Your task to perform on an android device: open app "Messenger Lite" Image 0: 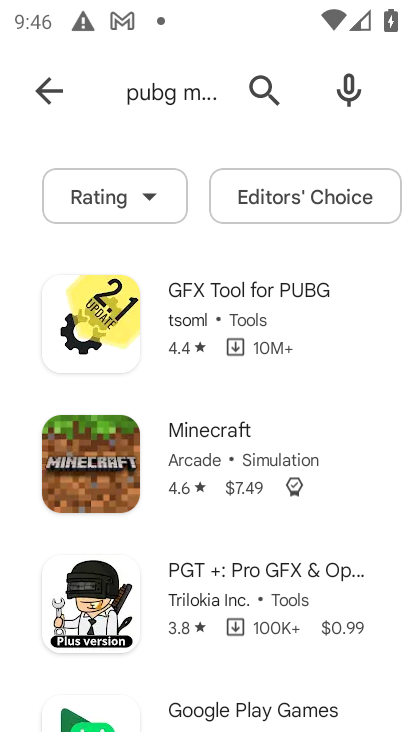
Step 0: click (256, 93)
Your task to perform on an android device: open app "Messenger Lite" Image 1: 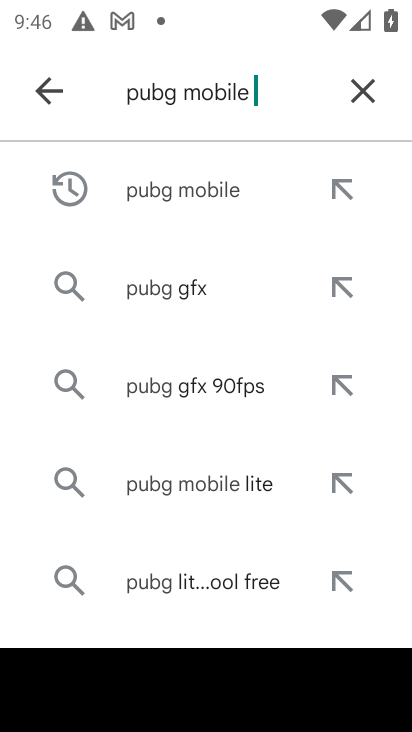
Step 1: click (345, 90)
Your task to perform on an android device: open app "Messenger Lite" Image 2: 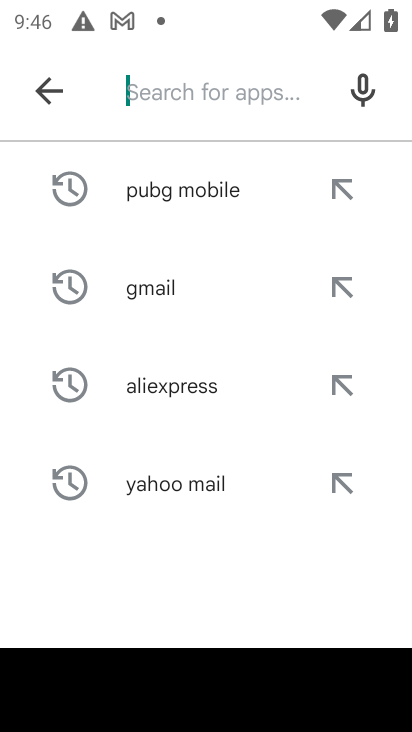
Step 2: type "Messenger Lite"
Your task to perform on an android device: open app "Messenger Lite" Image 3: 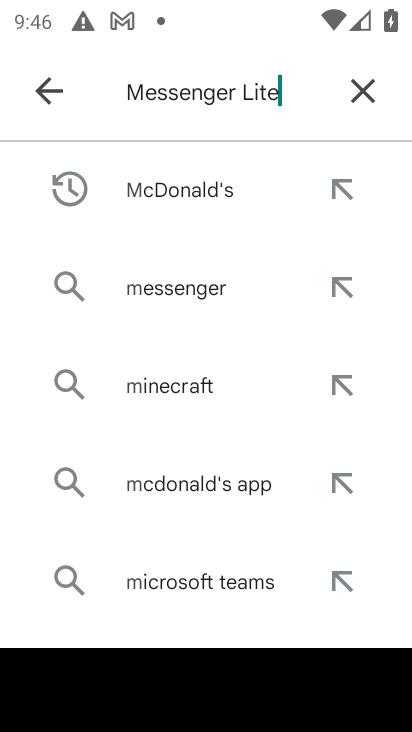
Step 3: type ""
Your task to perform on an android device: open app "Messenger Lite" Image 4: 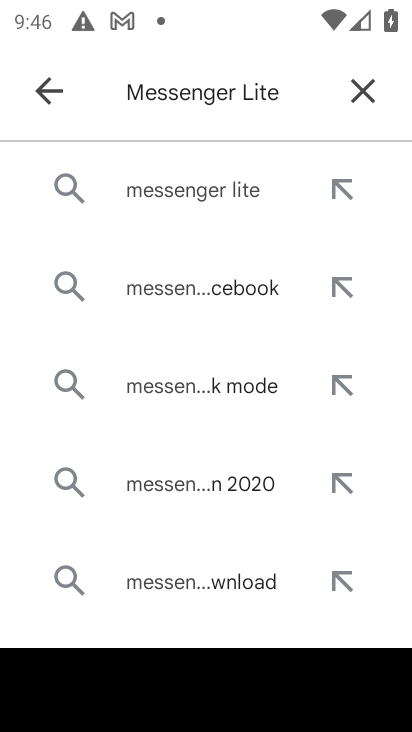
Step 4: click (281, 170)
Your task to perform on an android device: open app "Messenger Lite" Image 5: 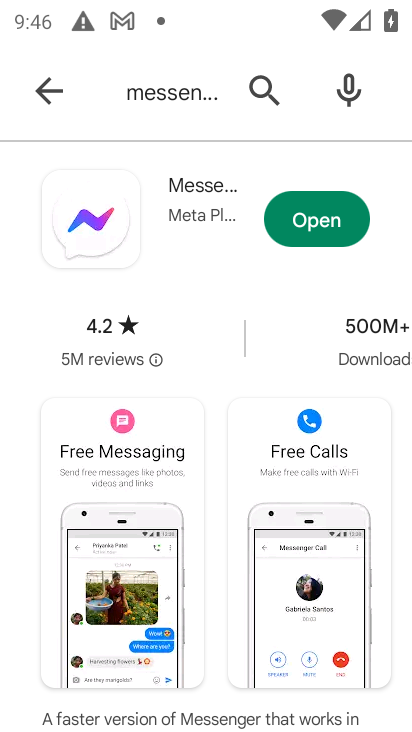
Step 5: click (324, 222)
Your task to perform on an android device: open app "Messenger Lite" Image 6: 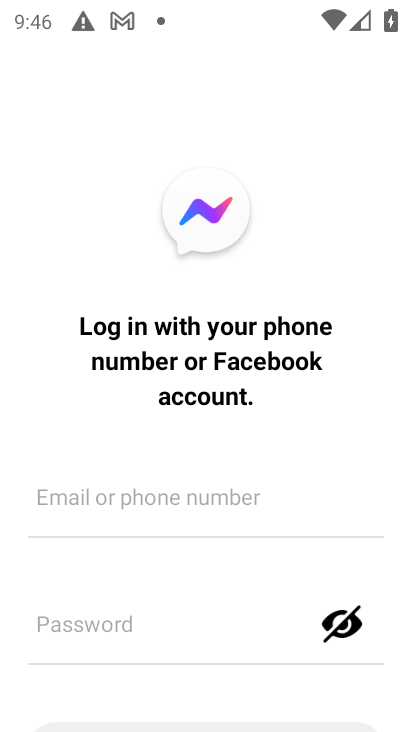
Step 6: task complete